Your task to perform on an android device: Open internet settings Image 0: 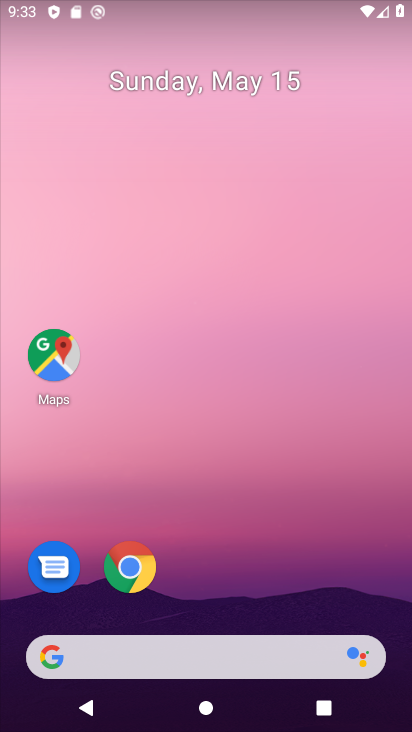
Step 0: drag from (241, 580) to (252, 102)
Your task to perform on an android device: Open internet settings Image 1: 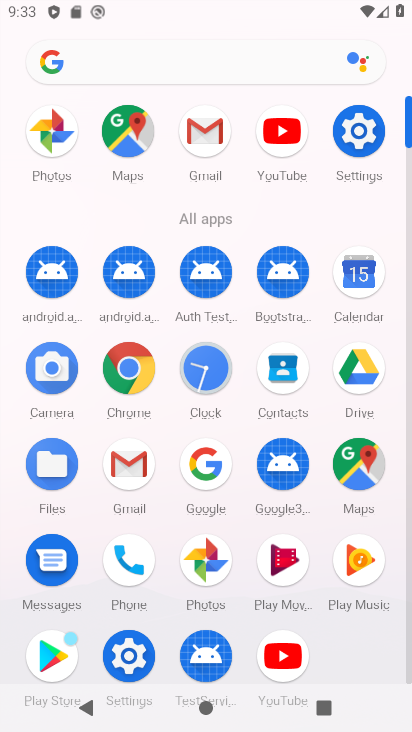
Step 1: click (361, 128)
Your task to perform on an android device: Open internet settings Image 2: 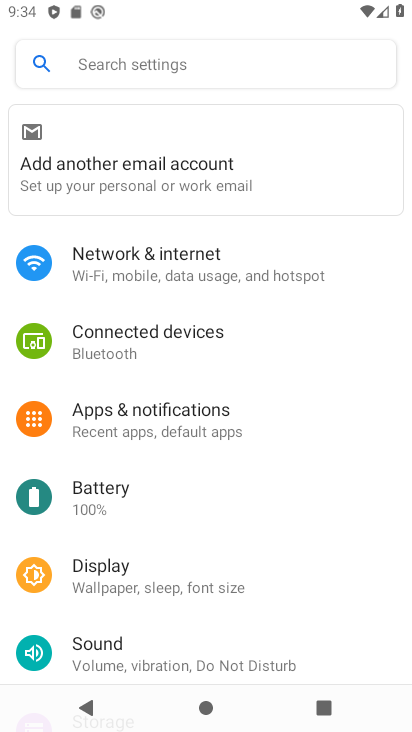
Step 2: click (138, 270)
Your task to perform on an android device: Open internet settings Image 3: 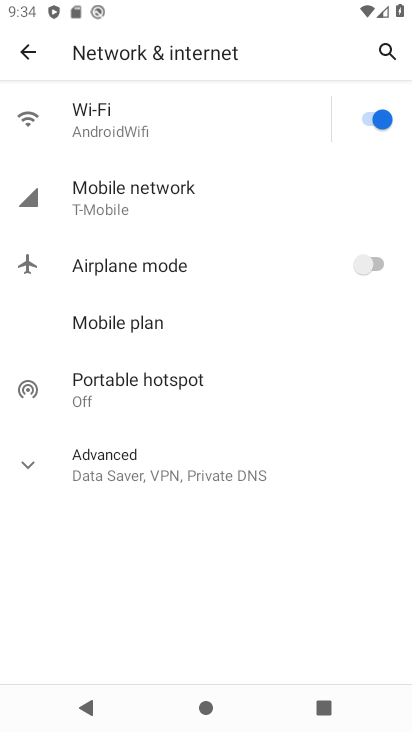
Step 3: click (149, 120)
Your task to perform on an android device: Open internet settings Image 4: 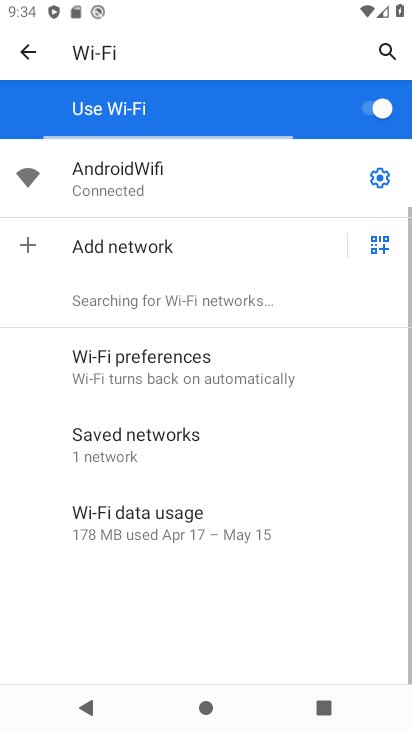
Step 4: click (379, 175)
Your task to perform on an android device: Open internet settings Image 5: 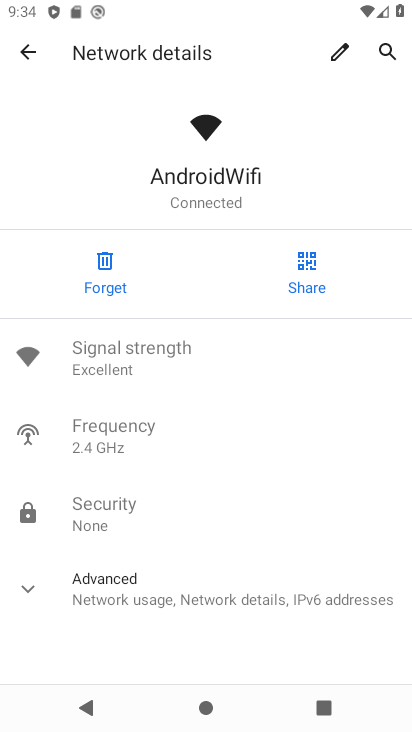
Step 5: task complete